Your task to perform on an android device: check google app version Image 0: 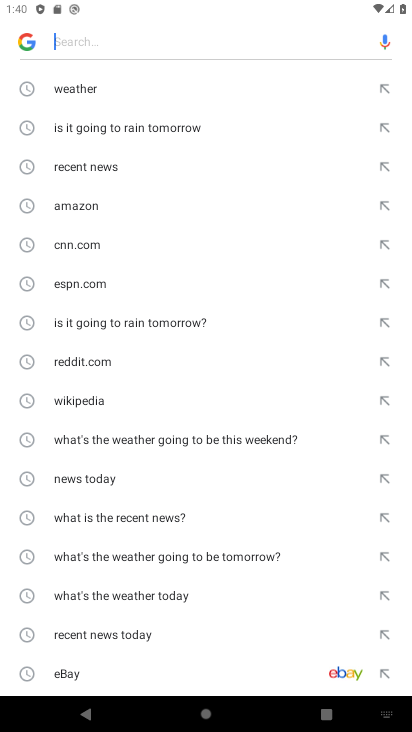
Step 0: press home button
Your task to perform on an android device: check google app version Image 1: 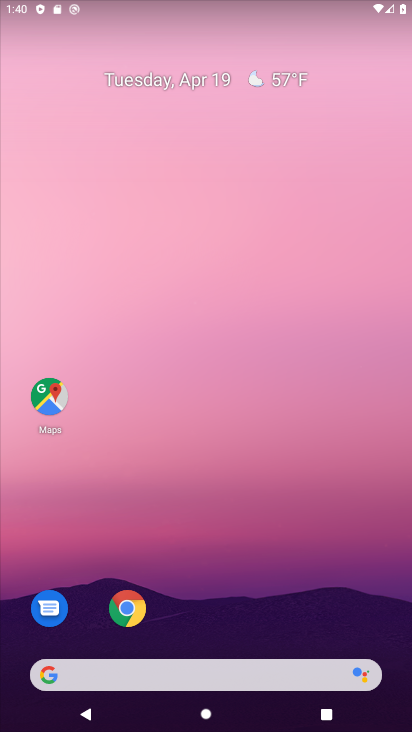
Step 1: drag from (244, 606) to (265, 224)
Your task to perform on an android device: check google app version Image 2: 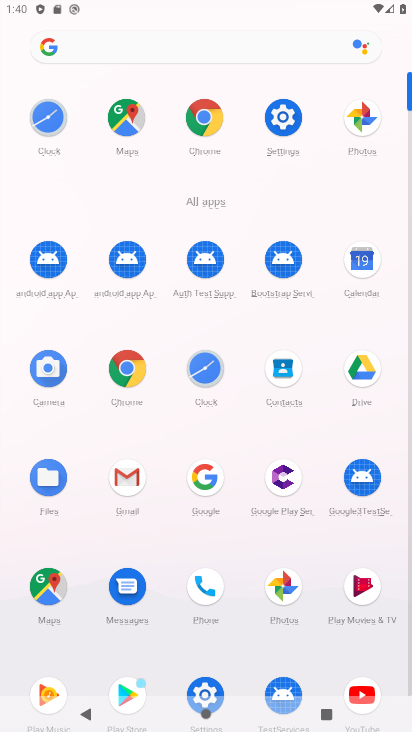
Step 2: drag from (168, 543) to (205, 232)
Your task to perform on an android device: check google app version Image 3: 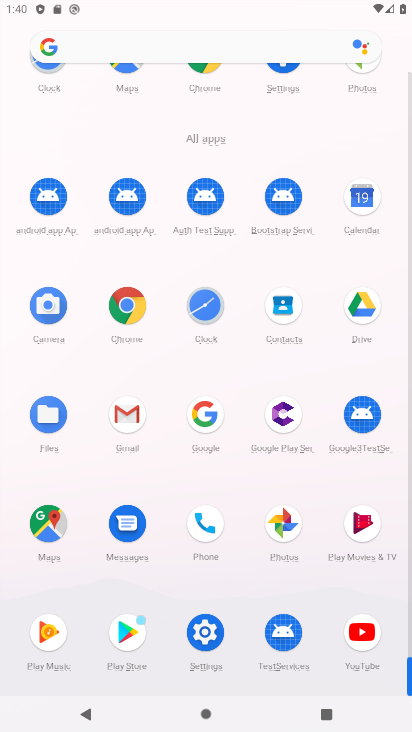
Step 3: drag from (162, 589) to (191, 282)
Your task to perform on an android device: check google app version Image 4: 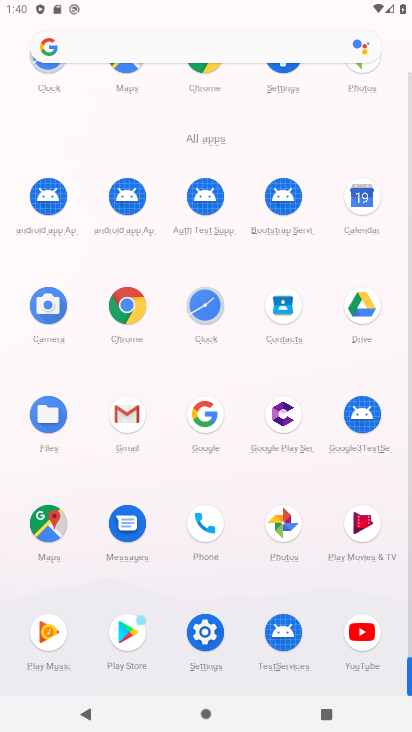
Step 4: drag from (169, 267) to (155, 368)
Your task to perform on an android device: check google app version Image 5: 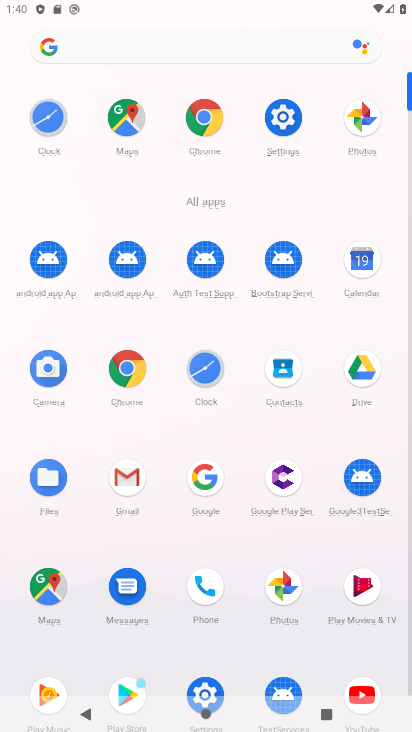
Step 5: click (199, 476)
Your task to perform on an android device: check google app version Image 6: 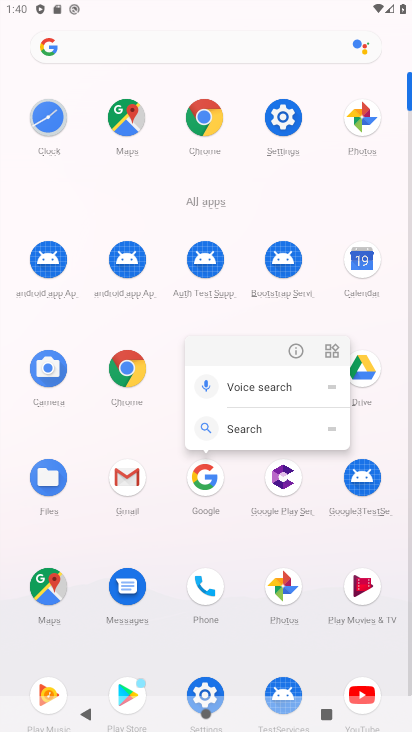
Step 6: click (294, 344)
Your task to perform on an android device: check google app version Image 7: 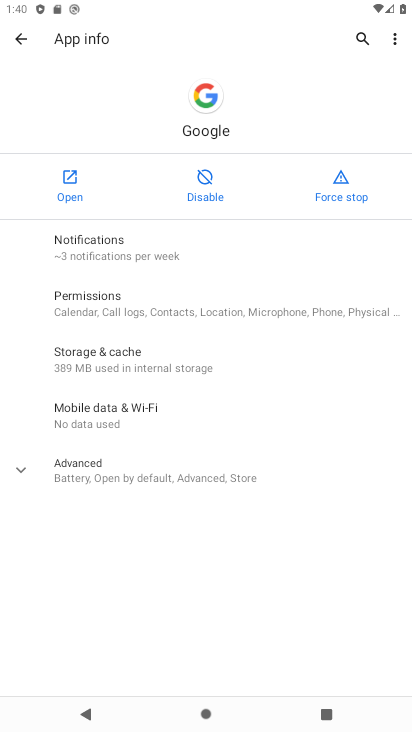
Step 7: click (155, 469)
Your task to perform on an android device: check google app version Image 8: 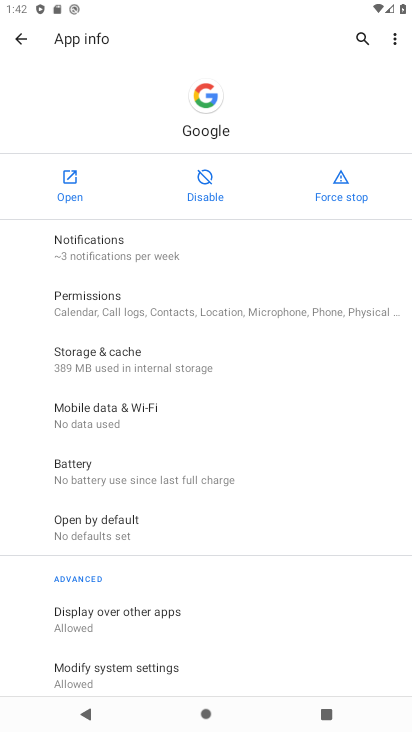
Step 8: task complete